Your task to perform on an android device: turn on javascript in the chrome app Image 0: 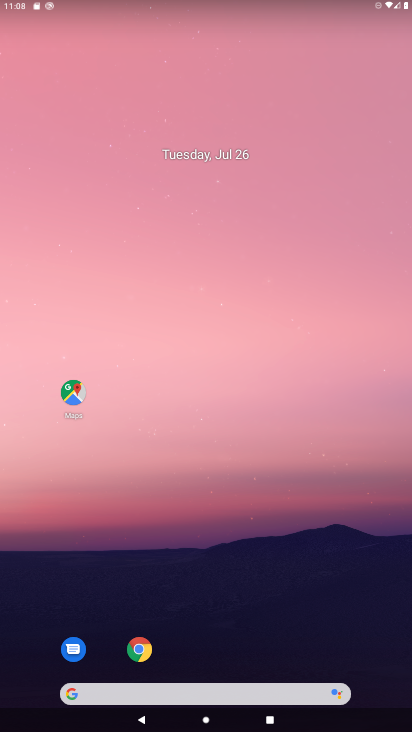
Step 0: click (152, 647)
Your task to perform on an android device: turn on javascript in the chrome app Image 1: 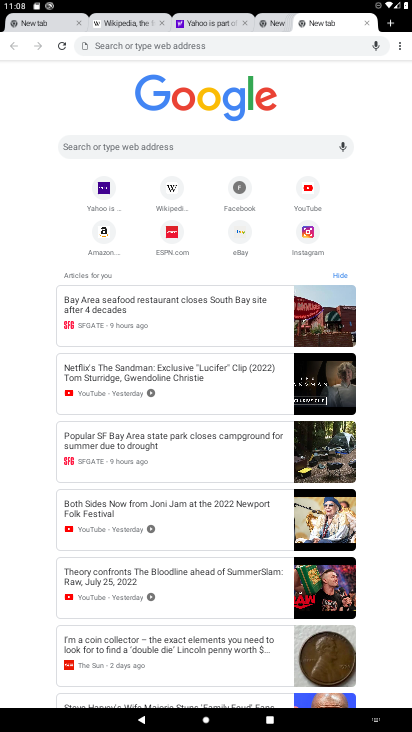
Step 1: click (401, 43)
Your task to perform on an android device: turn on javascript in the chrome app Image 2: 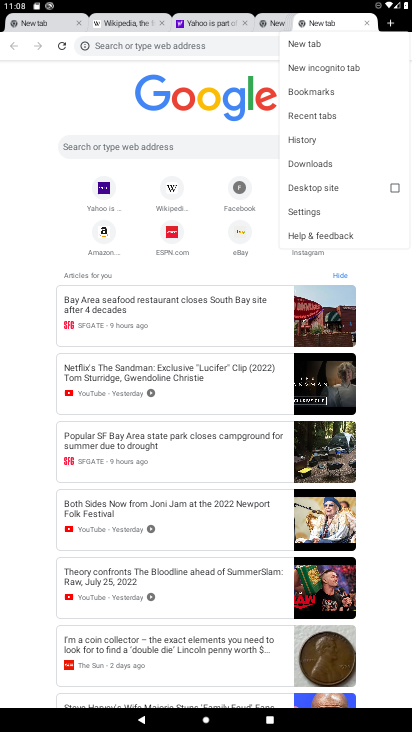
Step 2: click (302, 212)
Your task to perform on an android device: turn on javascript in the chrome app Image 3: 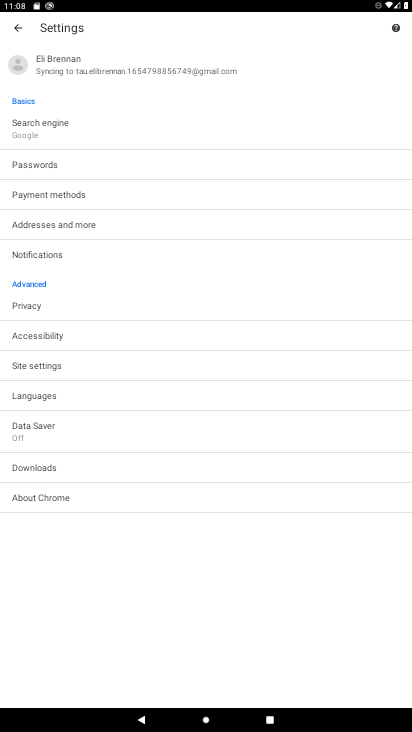
Step 3: click (36, 366)
Your task to perform on an android device: turn on javascript in the chrome app Image 4: 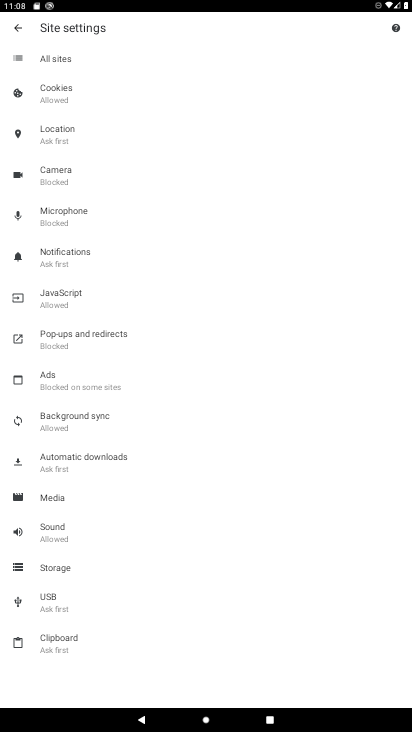
Step 4: click (61, 292)
Your task to perform on an android device: turn on javascript in the chrome app Image 5: 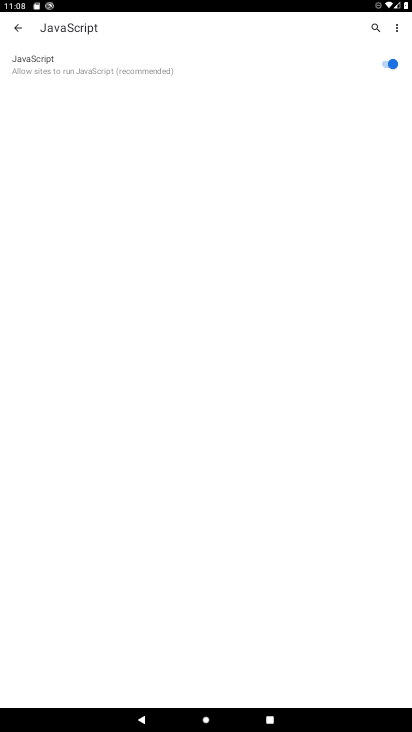
Step 5: task complete